Your task to perform on an android device: Search for hotels in Miami Image 0: 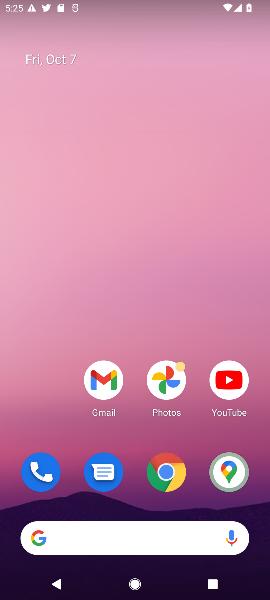
Step 0: click (169, 467)
Your task to perform on an android device: Search for hotels in Miami Image 1: 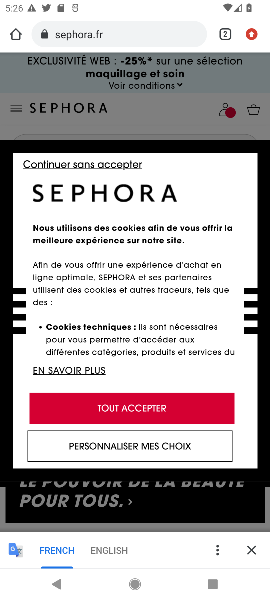
Step 1: click (147, 35)
Your task to perform on an android device: Search for hotels in Miami Image 2: 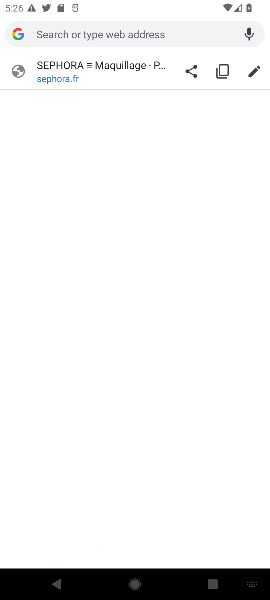
Step 2: type "hotels in Miami"
Your task to perform on an android device: Search for hotels in Miami Image 3: 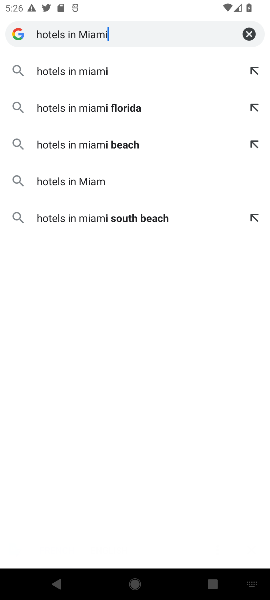
Step 3: type ""
Your task to perform on an android device: Search for hotels in Miami Image 4: 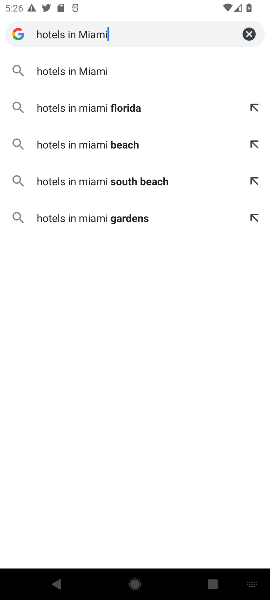
Step 4: click (39, 66)
Your task to perform on an android device: Search for hotels in Miami Image 5: 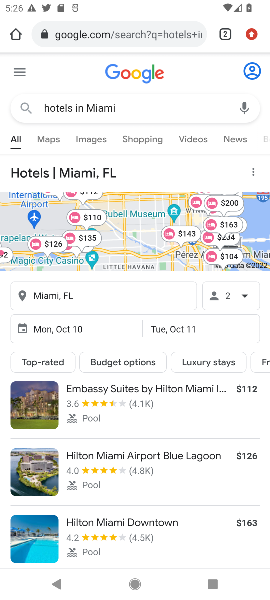
Step 5: drag from (125, 459) to (129, 263)
Your task to perform on an android device: Search for hotels in Miami Image 6: 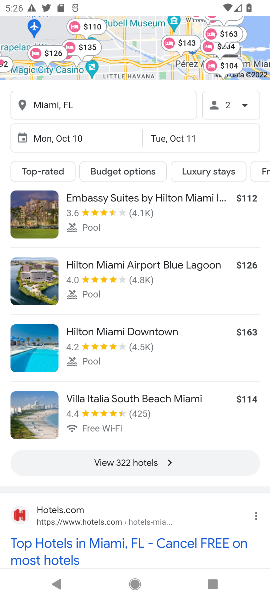
Step 6: click (127, 462)
Your task to perform on an android device: Search for hotels in Miami Image 7: 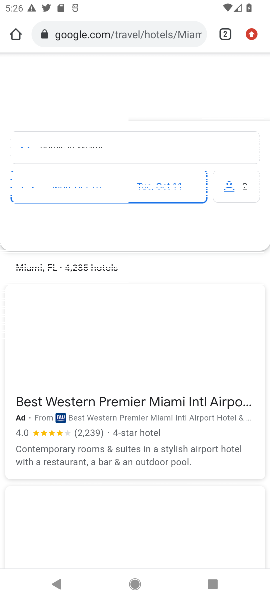
Step 7: task complete